Your task to perform on an android device: toggle show notifications on the lock screen Image 0: 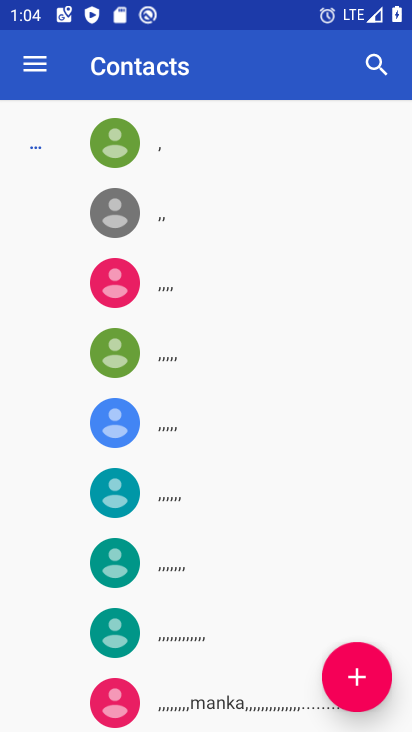
Step 0: press home button
Your task to perform on an android device: toggle show notifications on the lock screen Image 1: 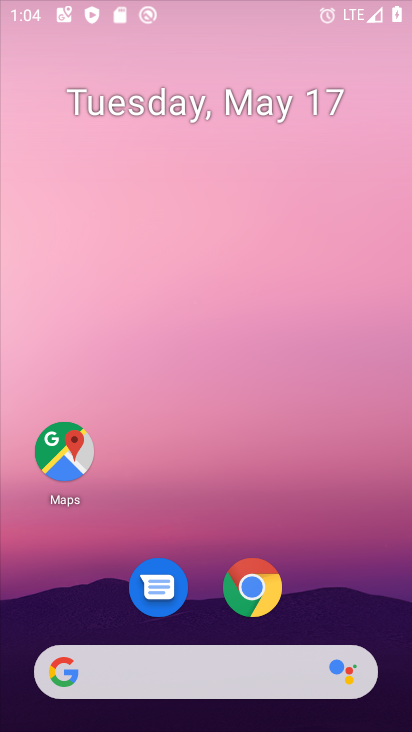
Step 1: drag from (398, 659) to (253, 120)
Your task to perform on an android device: toggle show notifications on the lock screen Image 2: 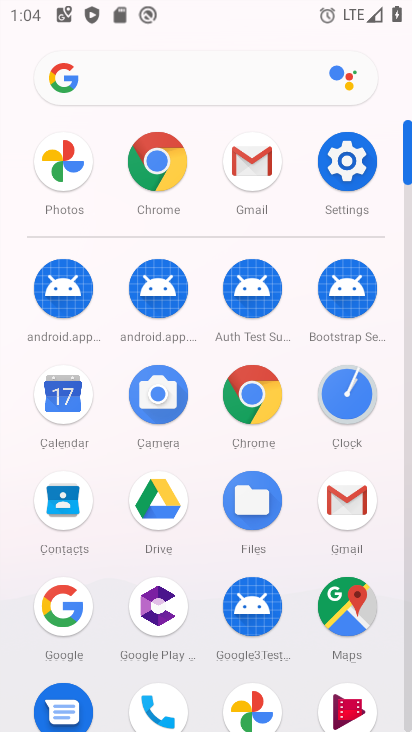
Step 2: click (349, 173)
Your task to perform on an android device: toggle show notifications on the lock screen Image 3: 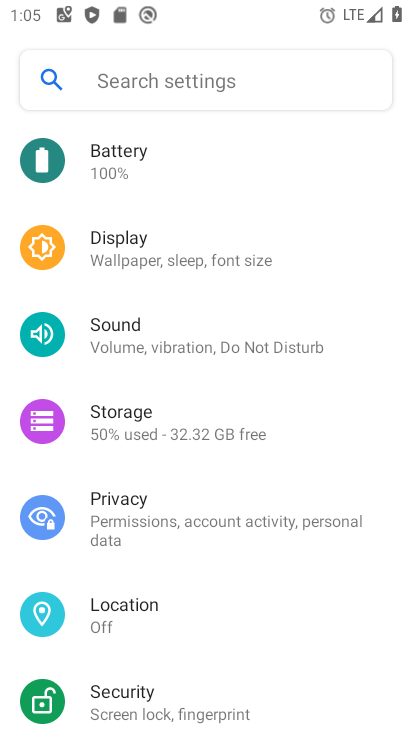
Step 3: drag from (203, 271) to (265, 612)
Your task to perform on an android device: toggle show notifications on the lock screen Image 4: 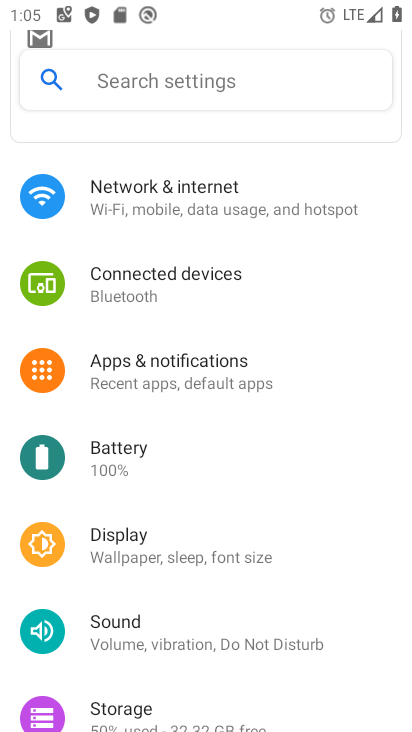
Step 4: click (238, 355)
Your task to perform on an android device: toggle show notifications on the lock screen Image 5: 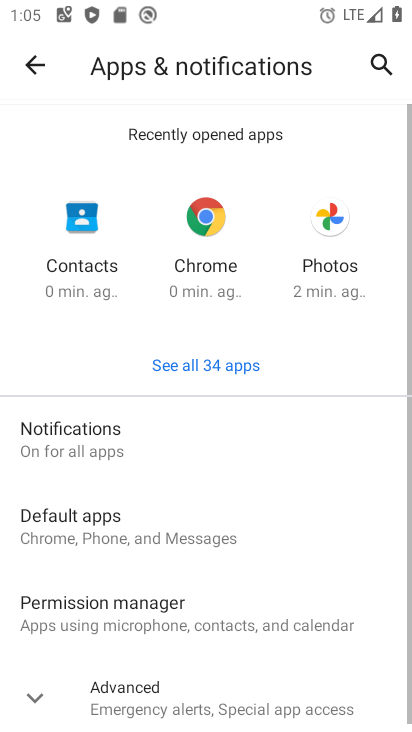
Step 5: click (209, 436)
Your task to perform on an android device: toggle show notifications on the lock screen Image 6: 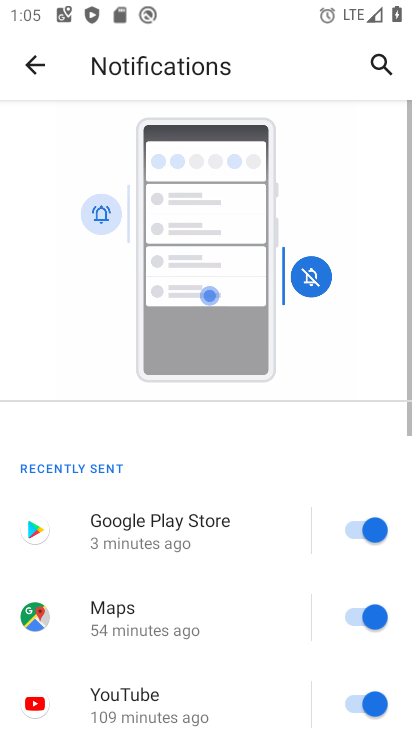
Step 6: drag from (150, 686) to (205, 93)
Your task to perform on an android device: toggle show notifications on the lock screen Image 7: 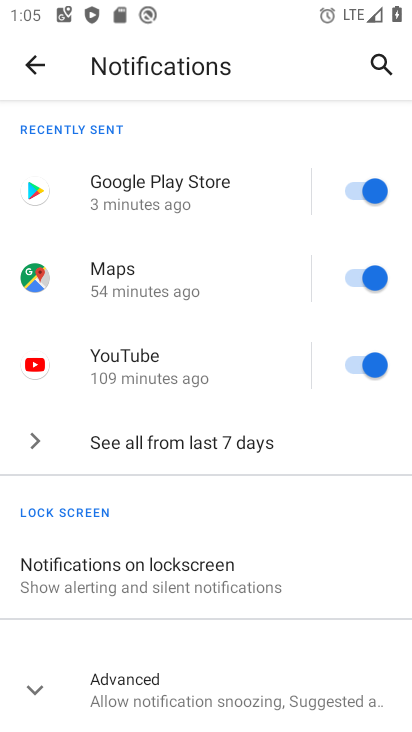
Step 7: click (113, 573)
Your task to perform on an android device: toggle show notifications on the lock screen Image 8: 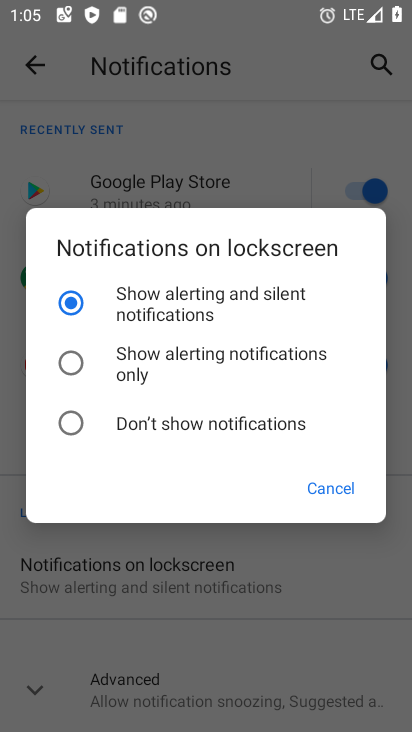
Step 8: click (115, 431)
Your task to perform on an android device: toggle show notifications on the lock screen Image 9: 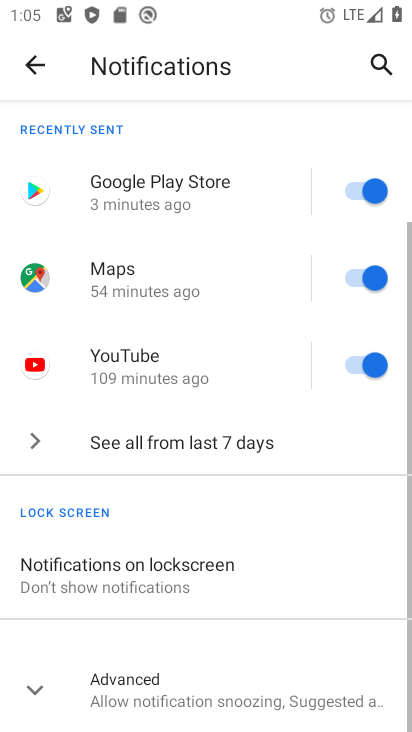
Step 9: task complete